Your task to perform on an android device: Go to wifi settings Image 0: 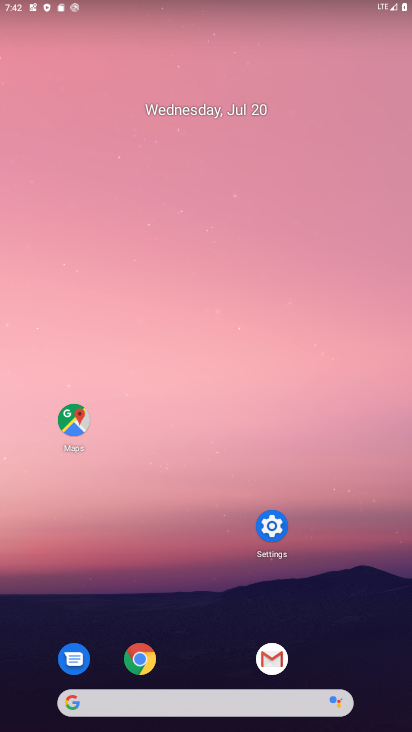
Step 0: click (268, 537)
Your task to perform on an android device: Go to wifi settings Image 1: 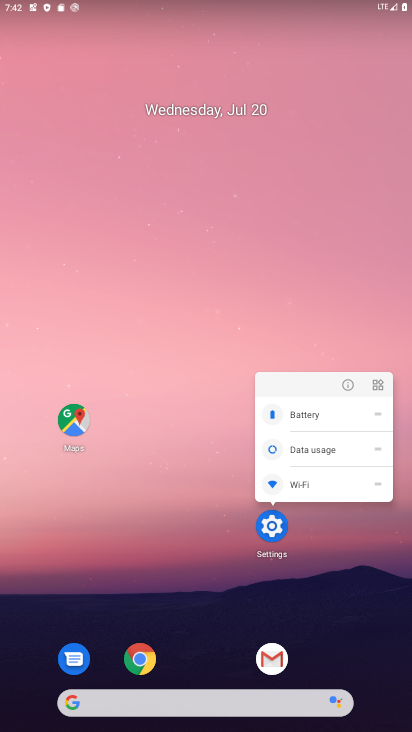
Step 1: click (280, 525)
Your task to perform on an android device: Go to wifi settings Image 2: 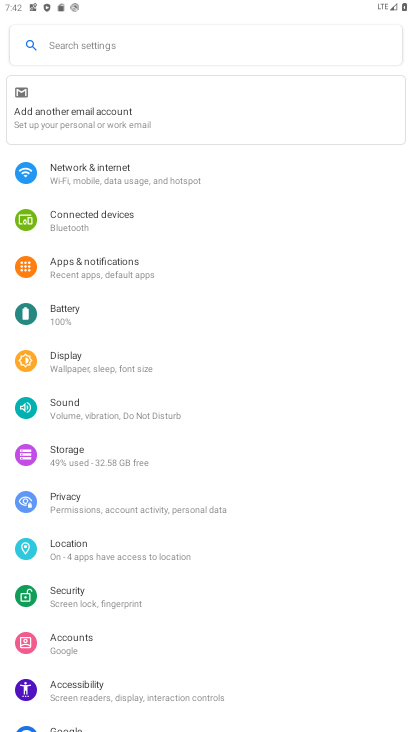
Step 2: click (107, 184)
Your task to perform on an android device: Go to wifi settings Image 3: 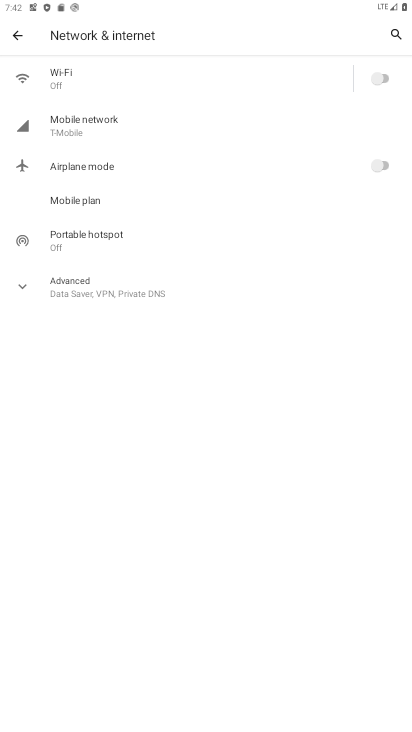
Step 3: click (110, 71)
Your task to perform on an android device: Go to wifi settings Image 4: 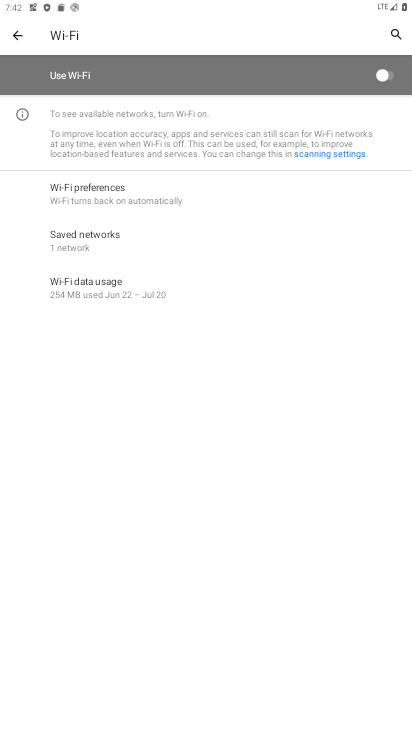
Step 4: click (366, 85)
Your task to perform on an android device: Go to wifi settings Image 5: 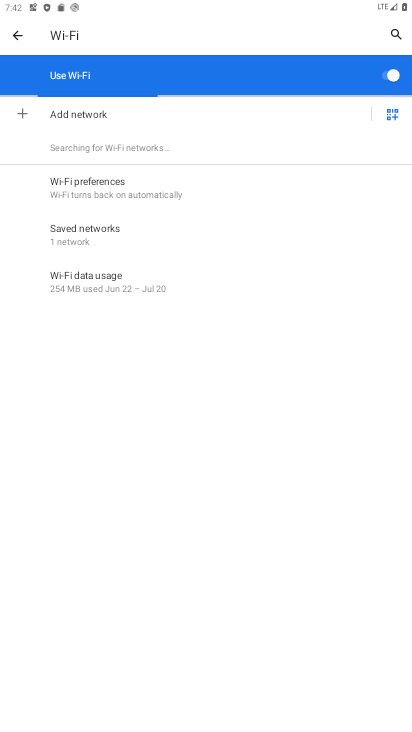
Step 5: task complete